Your task to perform on an android device: Open settings Image 0: 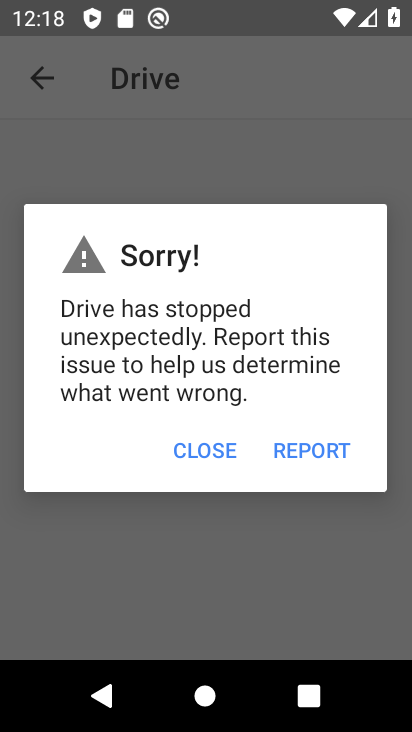
Step 0: press home button
Your task to perform on an android device: Open settings Image 1: 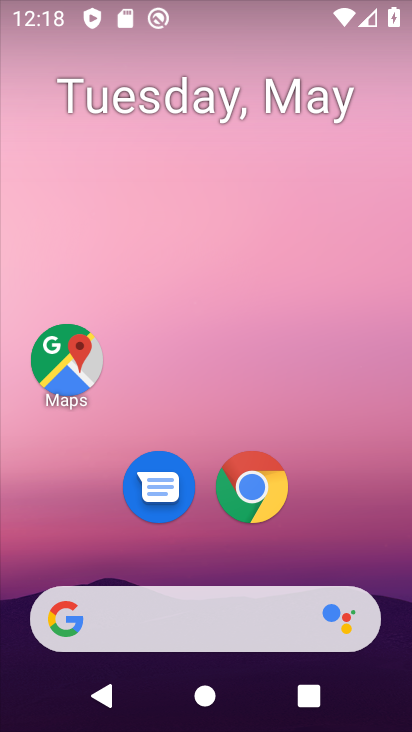
Step 1: drag from (351, 547) to (276, 176)
Your task to perform on an android device: Open settings Image 2: 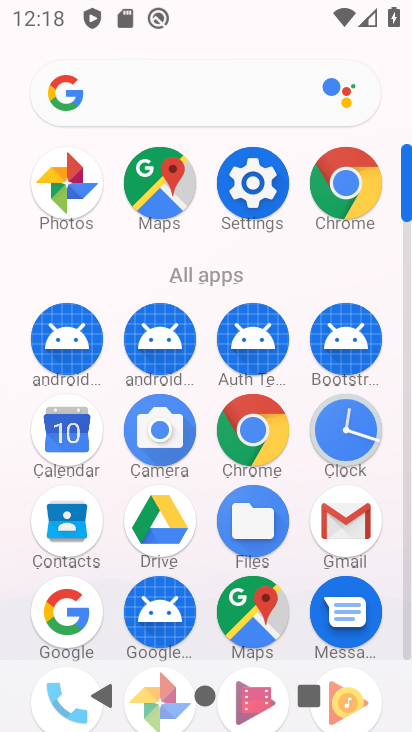
Step 2: click (252, 184)
Your task to perform on an android device: Open settings Image 3: 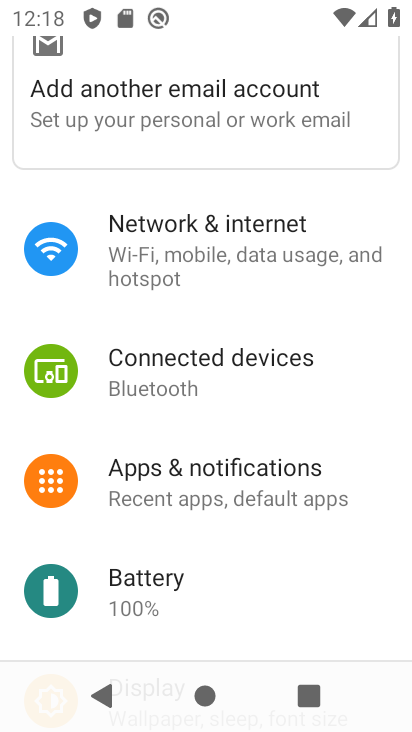
Step 3: task complete